Your task to perform on an android device: Show me productivity apps on the Play Store Image 0: 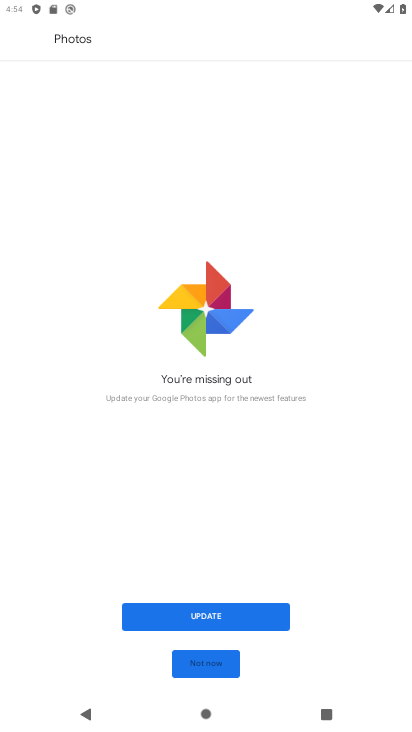
Step 0: press home button
Your task to perform on an android device: Show me productivity apps on the Play Store Image 1: 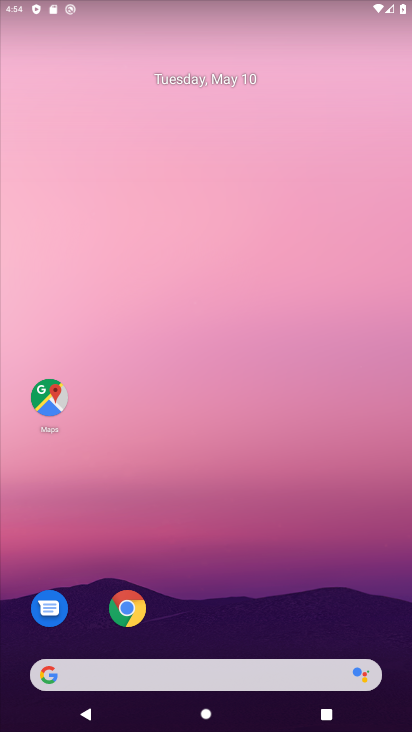
Step 1: drag from (217, 630) to (290, 5)
Your task to perform on an android device: Show me productivity apps on the Play Store Image 2: 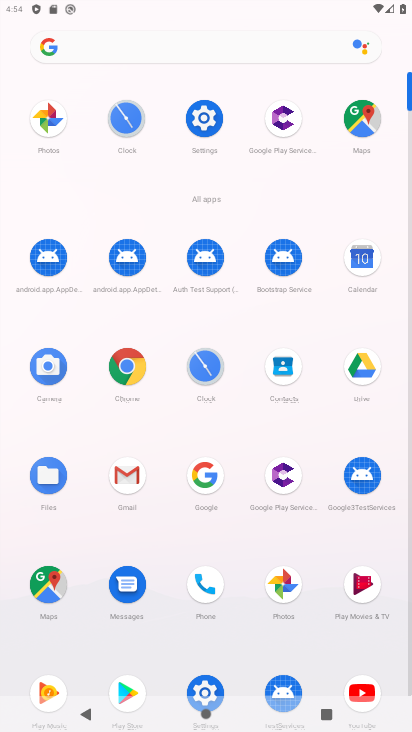
Step 2: drag from (152, 642) to (205, 356)
Your task to perform on an android device: Show me productivity apps on the Play Store Image 3: 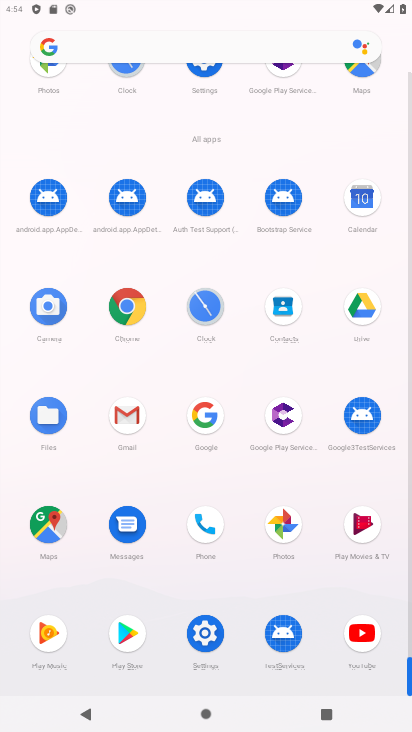
Step 3: click (131, 647)
Your task to perform on an android device: Show me productivity apps on the Play Store Image 4: 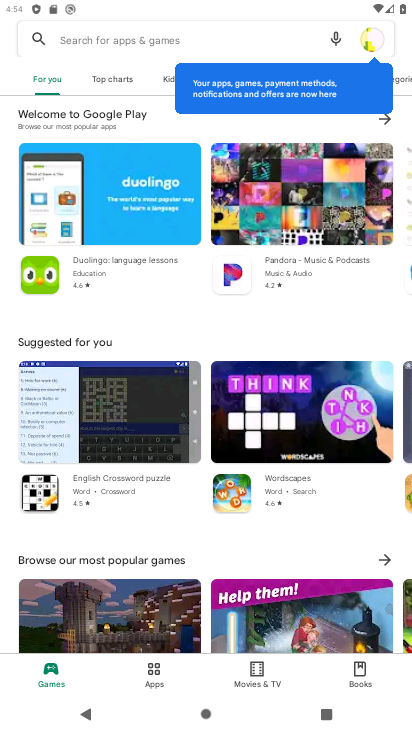
Step 4: click (150, 678)
Your task to perform on an android device: Show me productivity apps on the Play Store Image 5: 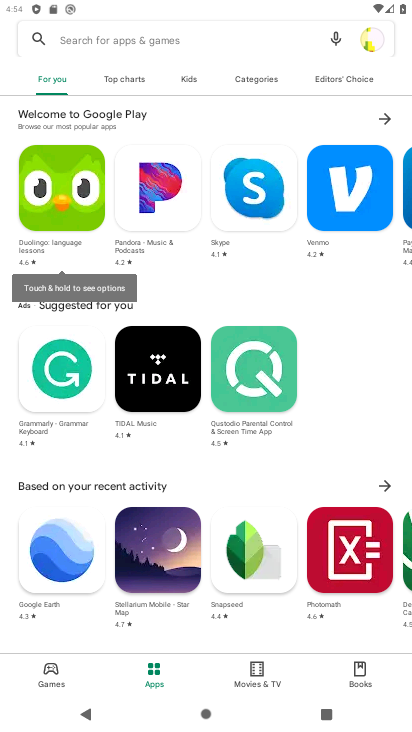
Step 5: click (342, 78)
Your task to perform on an android device: Show me productivity apps on the Play Store Image 6: 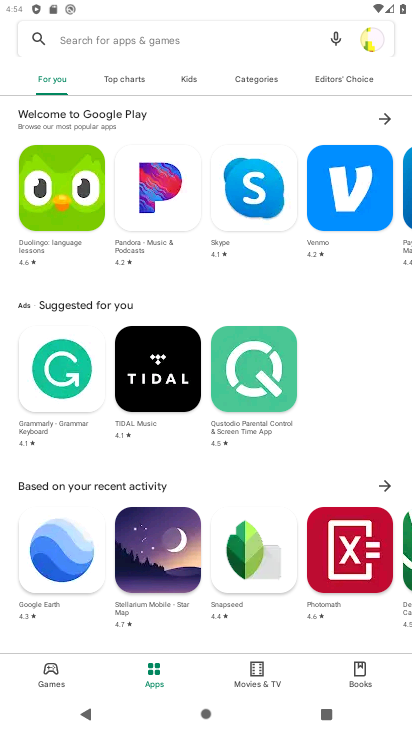
Step 6: click (265, 92)
Your task to perform on an android device: Show me productivity apps on the Play Store Image 7: 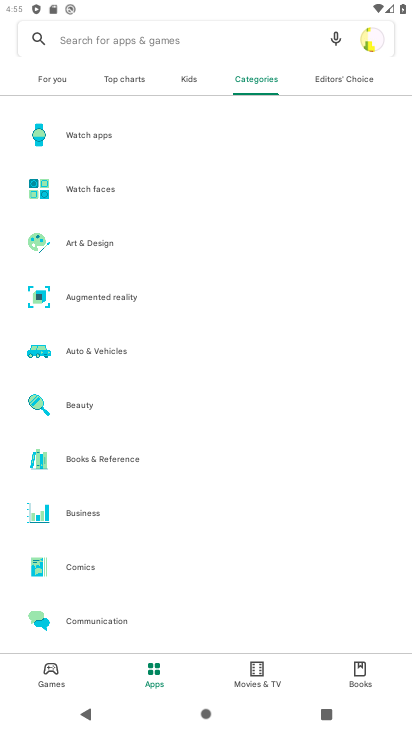
Step 7: drag from (124, 529) to (164, 222)
Your task to perform on an android device: Show me productivity apps on the Play Store Image 8: 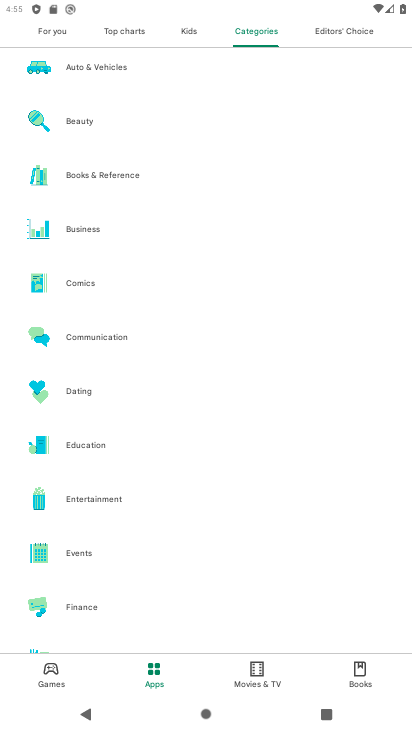
Step 8: drag from (112, 567) to (135, 351)
Your task to perform on an android device: Show me productivity apps on the Play Store Image 9: 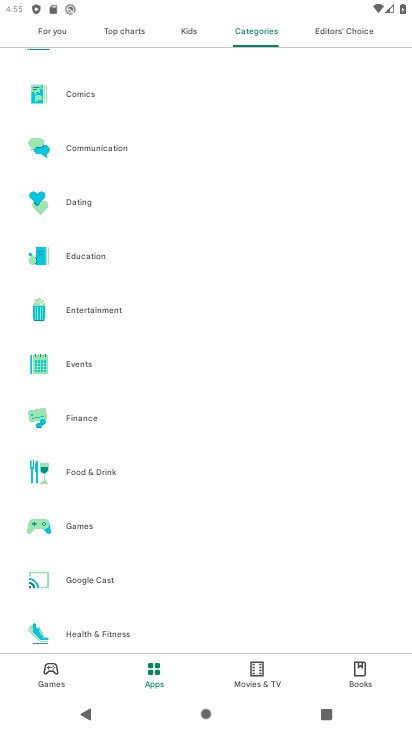
Step 9: drag from (110, 581) to (128, 272)
Your task to perform on an android device: Show me productivity apps on the Play Store Image 10: 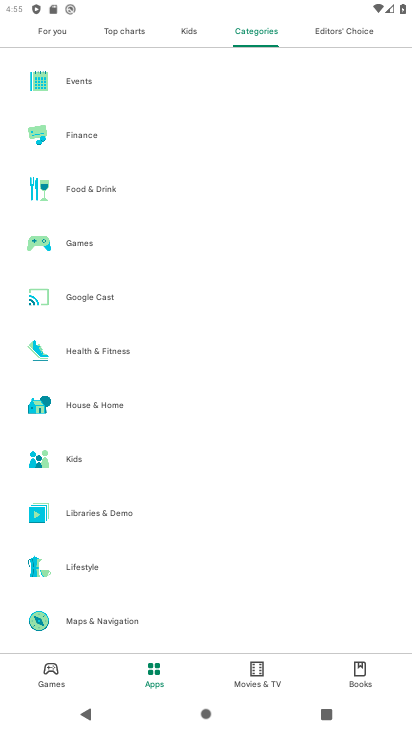
Step 10: drag from (117, 601) to (160, 50)
Your task to perform on an android device: Show me productivity apps on the Play Store Image 11: 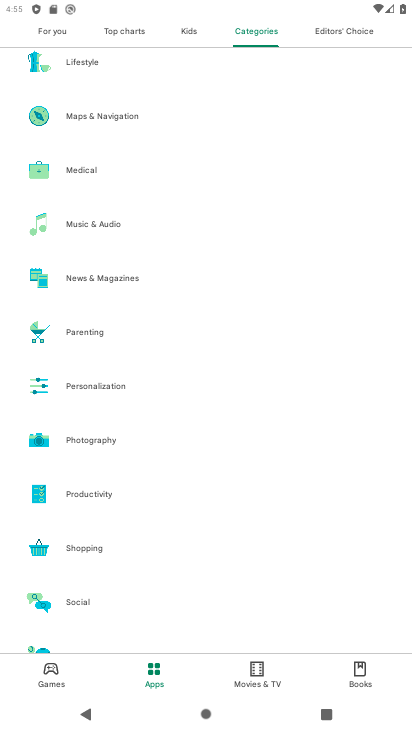
Step 11: click (102, 492)
Your task to perform on an android device: Show me productivity apps on the Play Store Image 12: 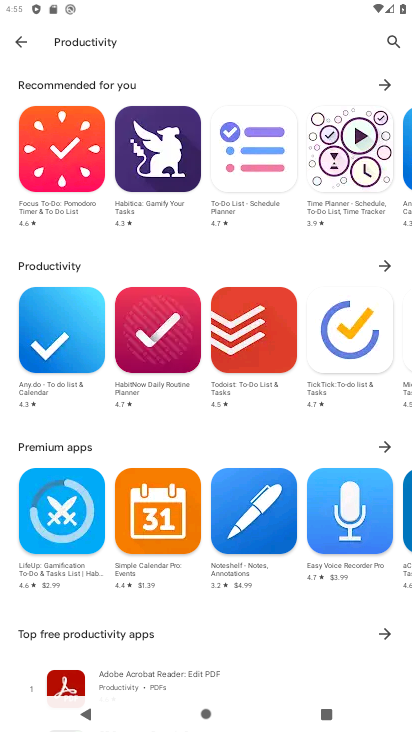
Step 12: task complete